Your task to perform on an android device: turn on wifi Image 0: 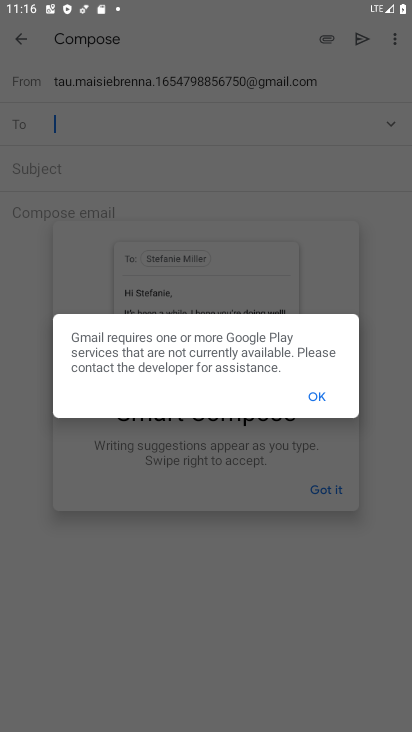
Step 0: press home button
Your task to perform on an android device: turn on wifi Image 1: 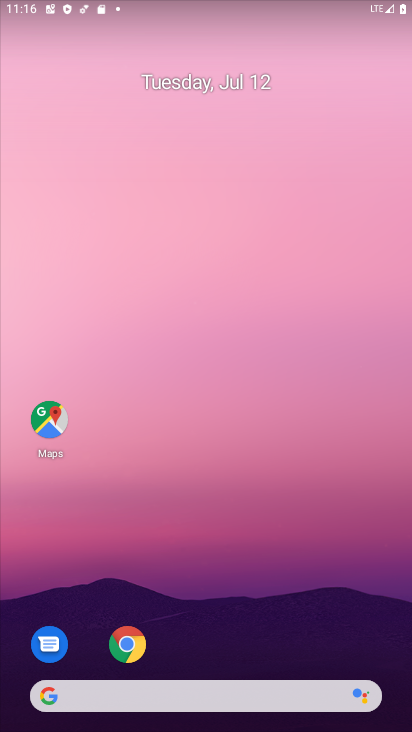
Step 1: drag from (124, 701) to (324, 18)
Your task to perform on an android device: turn on wifi Image 2: 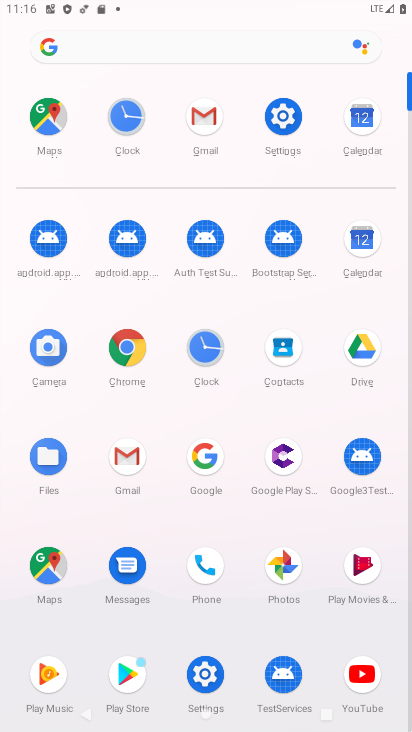
Step 2: click (277, 113)
Your task to perform on an android device: turn on wifi Image 3: 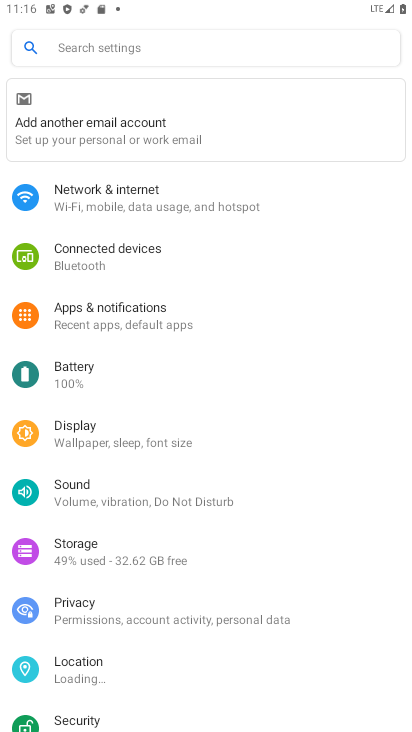
Step 3: click (103, 205)
Your task to perform on an android device: turn on wifi Image 4: 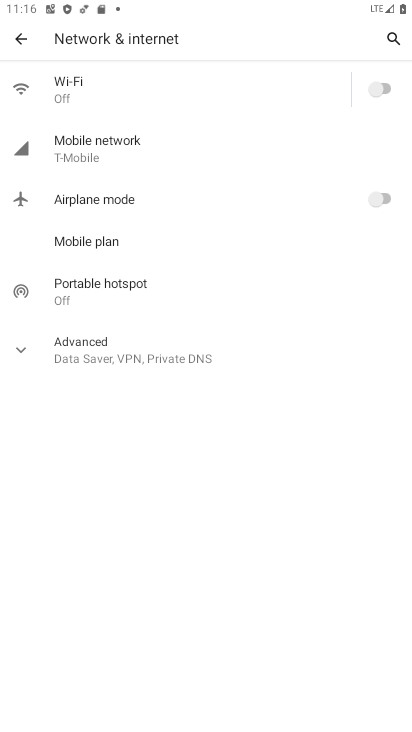
Step 4: click (372, 89)
Your task to perform on an android device: turn on wifi Image 5: 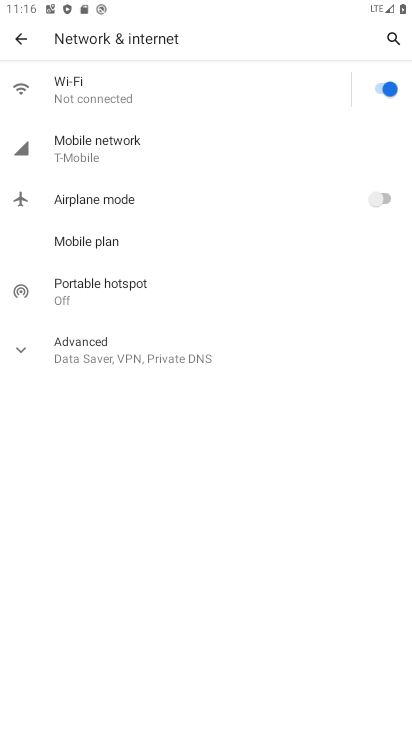
Step 5: task complete